Your task to perform on an android device: turn on translation in the chrome app Image 0: 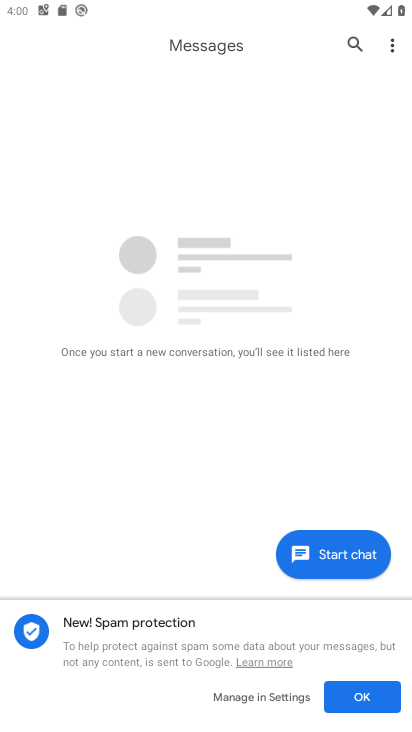
Step 0: press home button
Your task to perform on an android device: turn on translation in the chrome app Image 1: 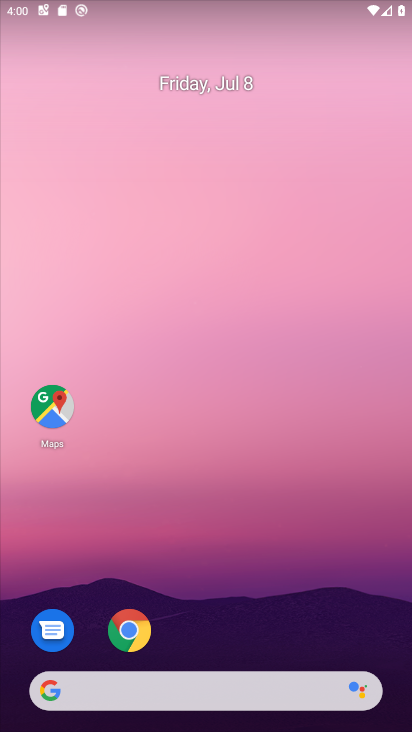
Step 1: drag from (265, 616) to (303, 104)
Your task to perform on an android device: turn on translation in the chrome app Image 2: 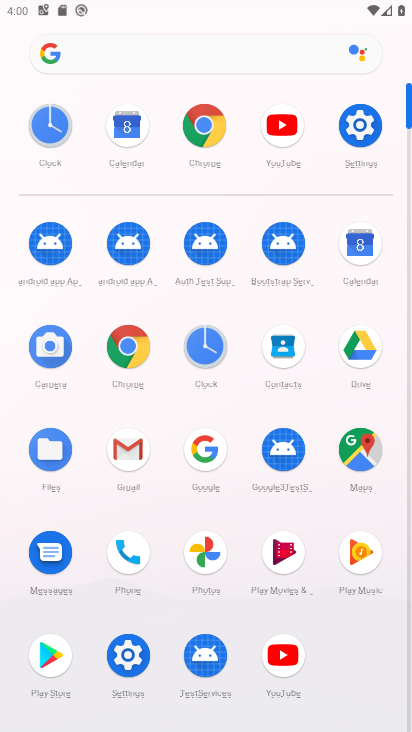
Step 2: click (129, 345)
Your task to perform on an android device: turn on translation in the chrome app Image 3: 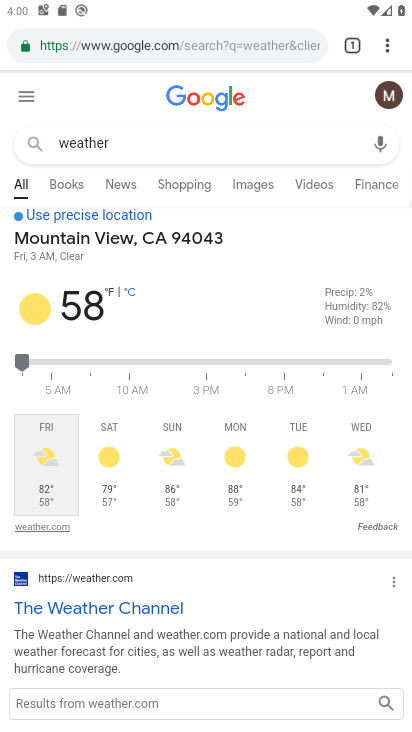
Step 3: click (386, 38)
Your task to perform on an android device: turn on translation in the chrome app Image 4: 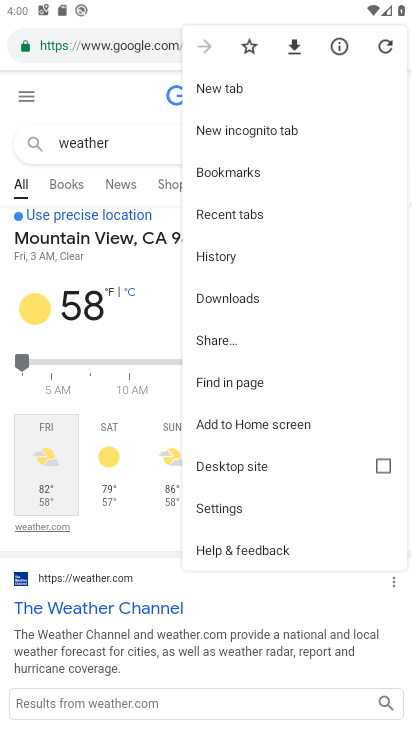
Step 4: click (237, 508)
Your task to perform on an android device: turn on translation in the chrome app Image 5: 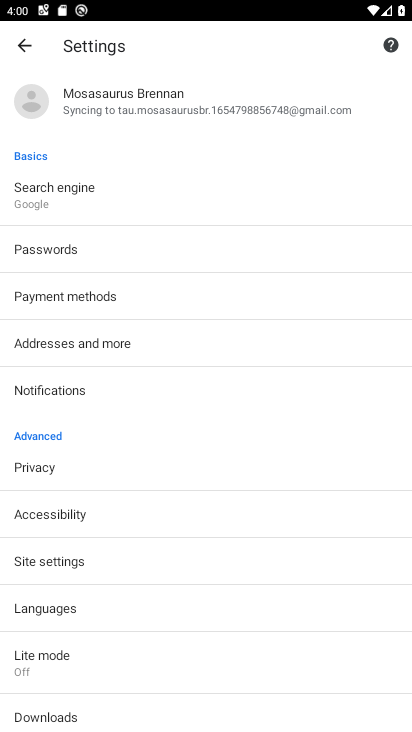
Step 5: click (54, 611)
Your task to perform on an android device: turn on translation in the chrome app Image 6: 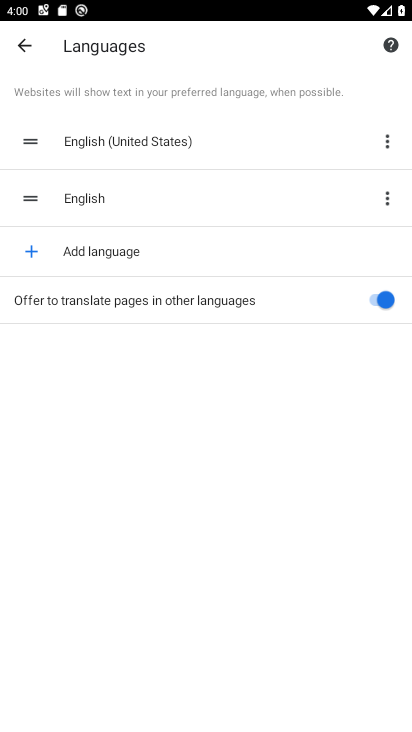
Step 6: task complete